Your task to perform on an android device: Search for vegetarian restaurants on Maps Image 0: 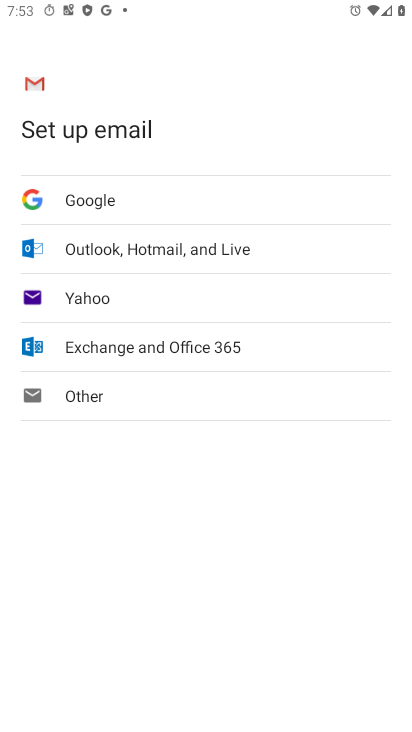
Step 0: press home button
Your task to perform on an android device: Search for vegetarian restaurants on Maps Image 1: 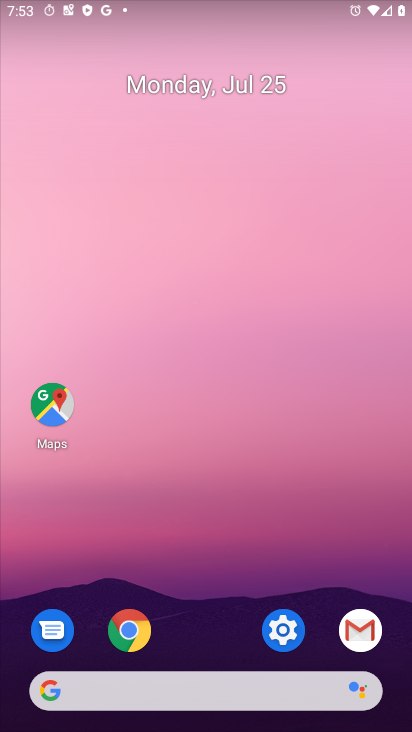
Step 1: click (60, 420)
Your task to perform on an android device: Search for vegetarian restaurants on Maps Image 2: 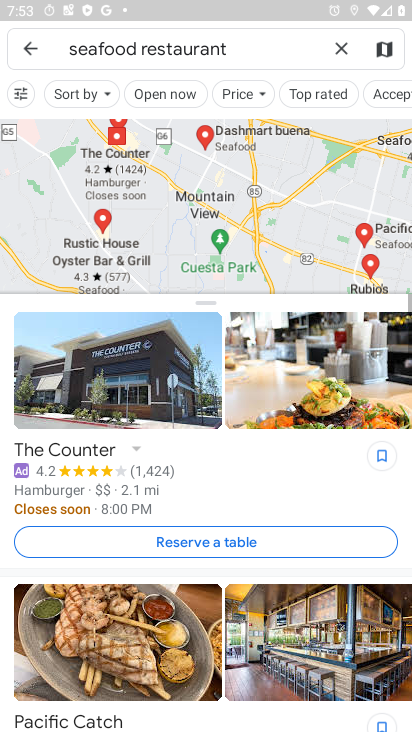
Step 2: click (338, 43)
Your task to perform on an android device: Search for vegetarian restaurants on Maps Image 3: 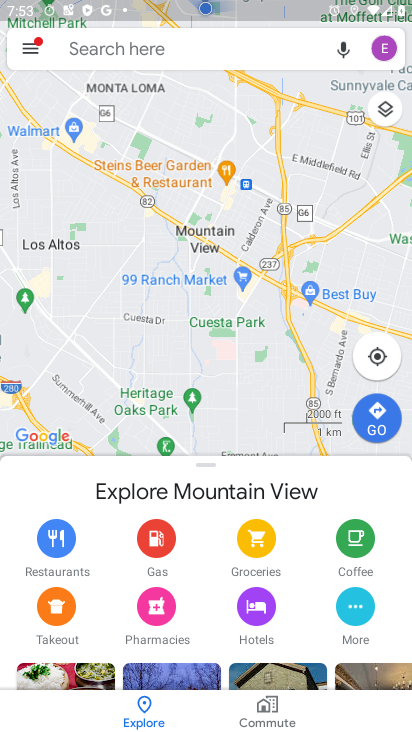
Step 3: click (195, 51)
Your task to perform on an android device: Search for vegetarian restaurants on Maps Image 4: 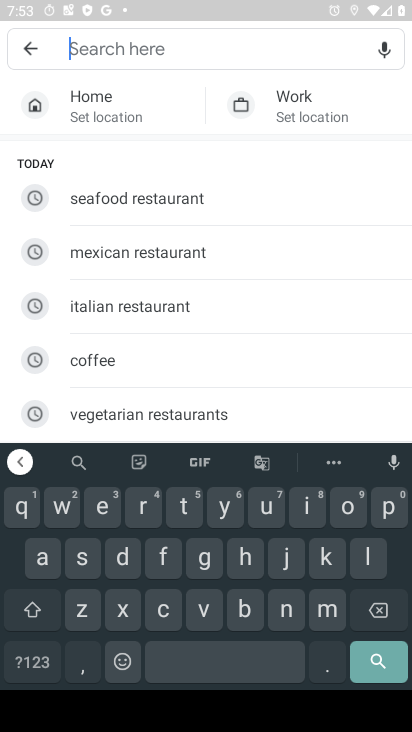
Step 4: click (135, 415)
Your task to perform on an android device: Search for vegetarian restaurants on Maps Image 5: 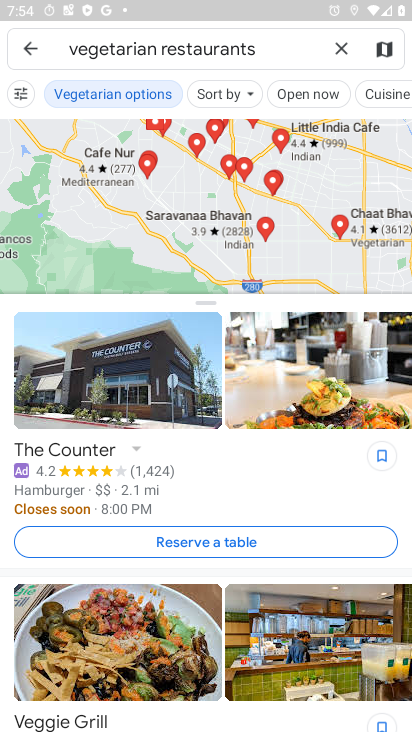
Step 5: task complete